Your task to perform on an android device: all mails in gmail Image 0: 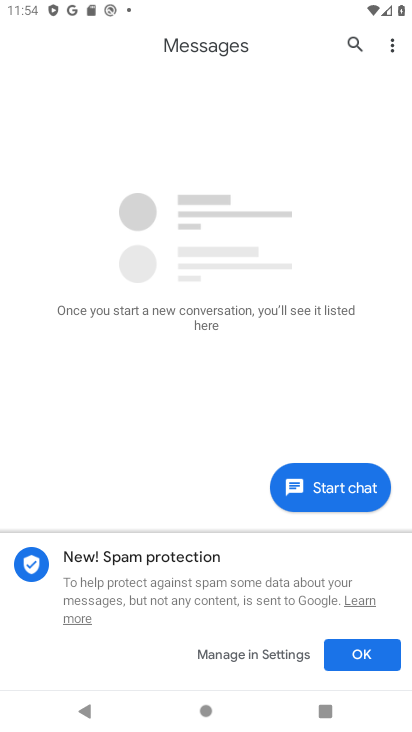
Step 0: press home button
Your task to perform on an android device: all mails in gmail Image 1: 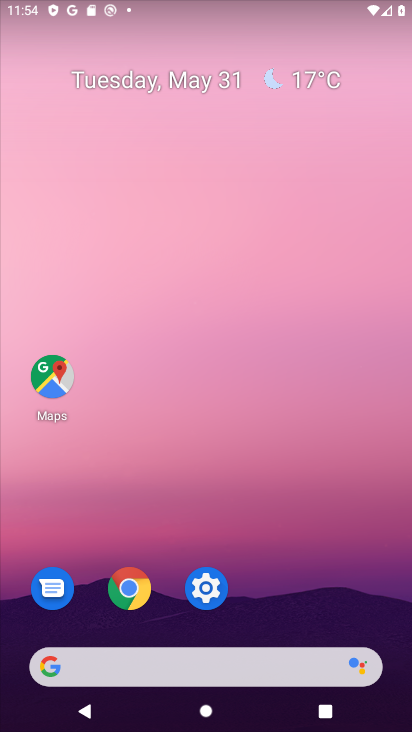
Step 1: drag from (175, 692) to (169, 149)
Your task to perform on an android device: all mails in gmail Image 2: 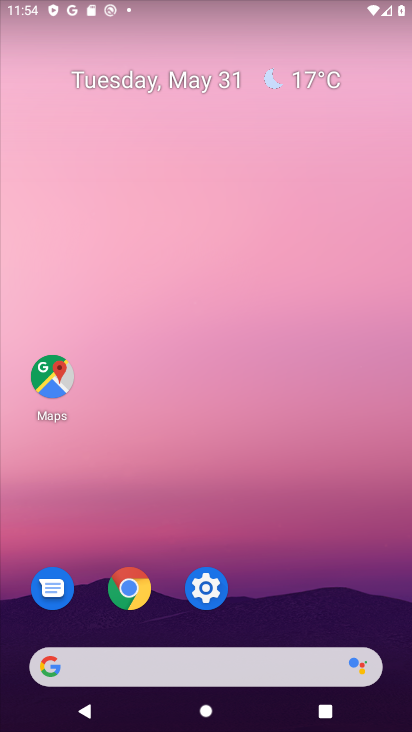
Step 2: drag from (173, 693) to (294, 161)
Your task to perform on an android device: all mails in gmail Image 3: 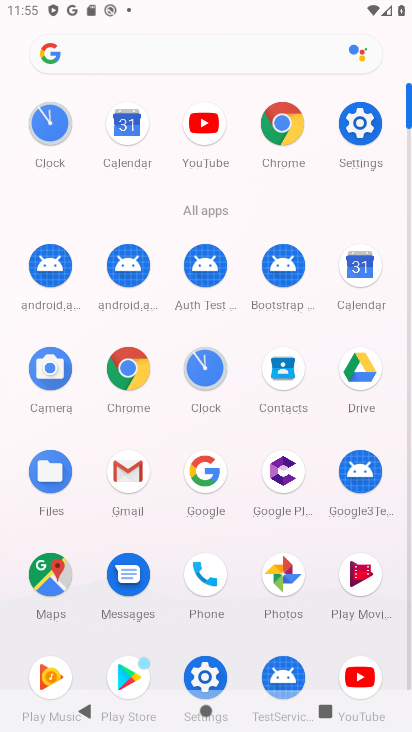
Step 3: click (133, 477)
Your task to perform on an android device: all mails in gmail Image 4: 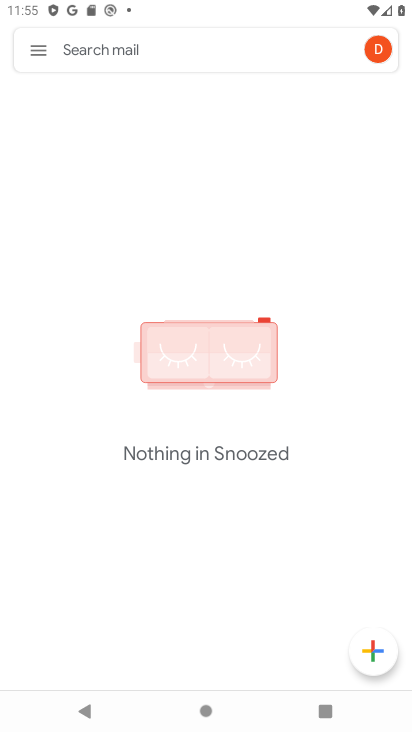
Step 4: click (34, 58)
Your task to perform on an android device: all mails in gmail Image 5: 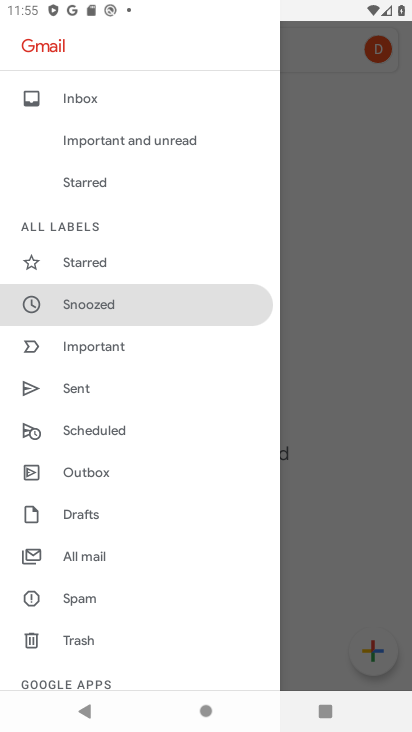
Step 5: click (82, 558)
Your task to perform on an android device: all mails in gmail Image 6: 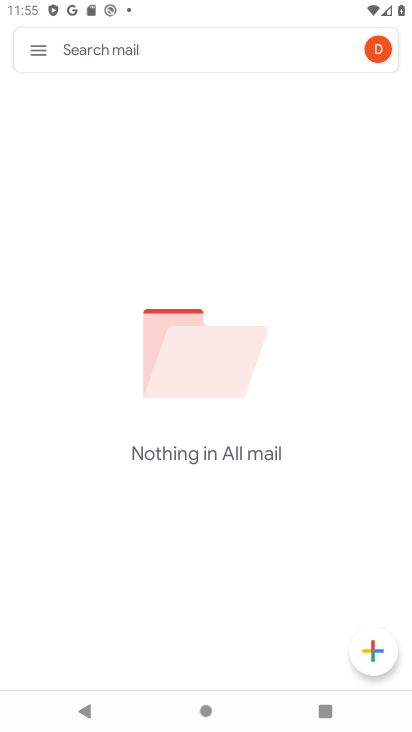
Step 6: task complete